Your task to perform on an android device: Open calendar and show me the first week of next month Image 0: 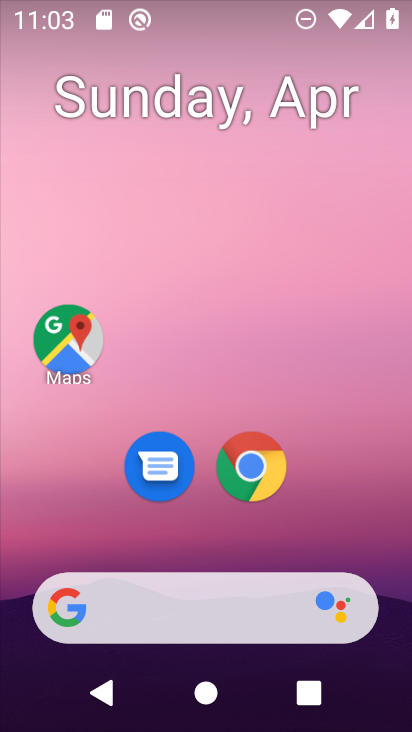
Step 0: drag from (352, 527) to (351, 112)
Your task to perform on an android device: Open calendar and show me the first week of next month Image 1: 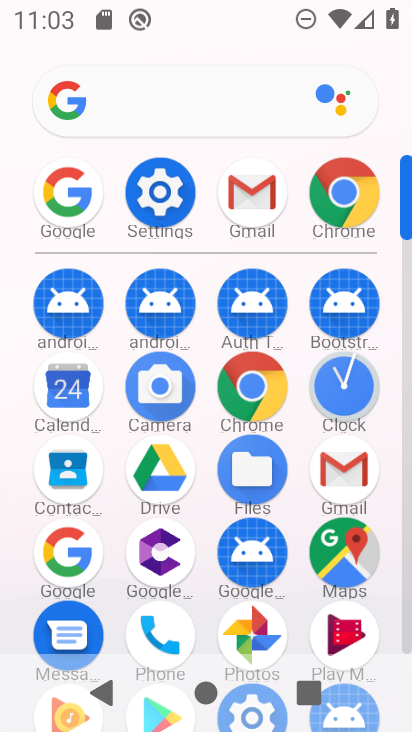
Step 1: click (75, 388)
Your task to perform on an android device: Open calendar and show me the first week of next month Image 2: 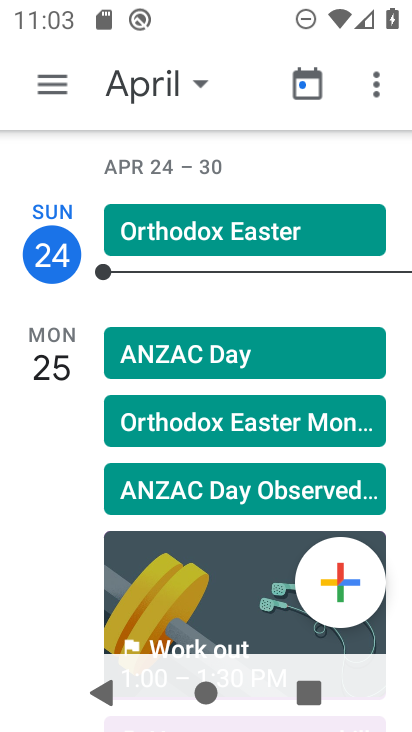
Step 2: click (200, 76)
Your task to perform on an android device: Open calendar and show me the first week of next month Image 3: 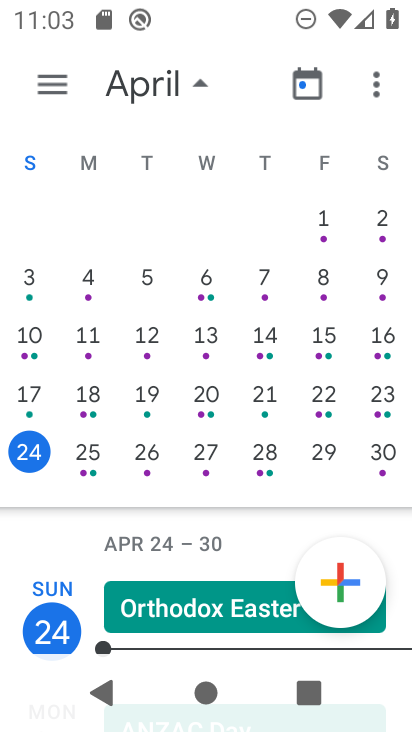
Step 3: drag from (388, 249) to (19, 236)
Your task to perform on an android device: Open calendar and show me the first week of next month Image 4: 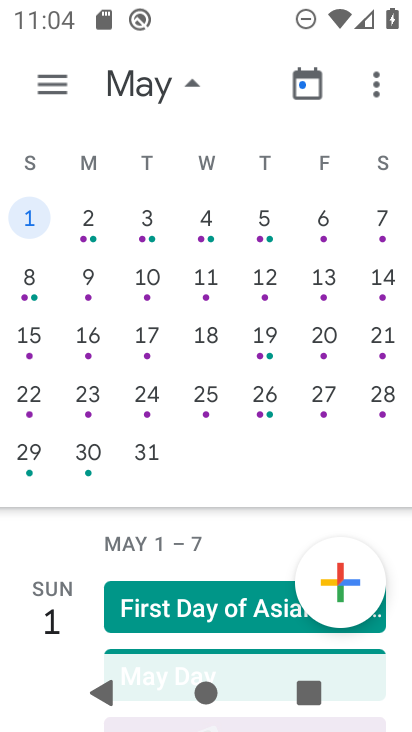
Step 4: click (92, 232)
Your task to perform on an android device: Open calendar and show me the first week of next month Image 5: 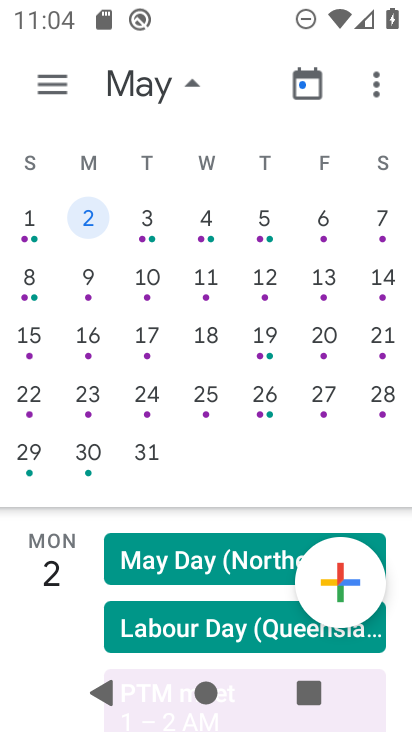
Step 5: task complete